Your task to perform on an android device: Turn on the flashlight Image 0: 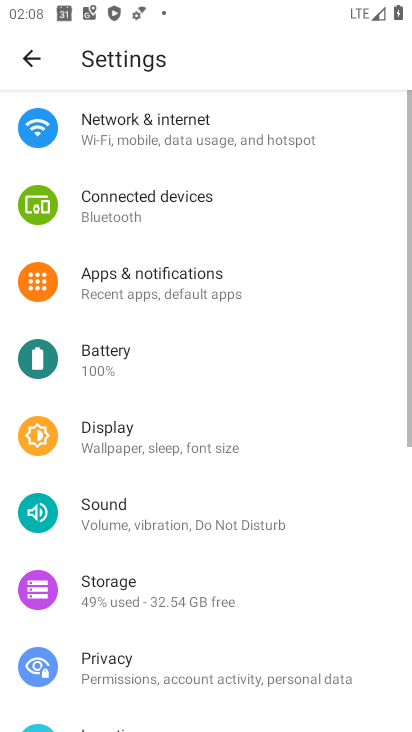
Step 0: press home button
Your task to perform on an android device: Turn on the flashlight Image 1: 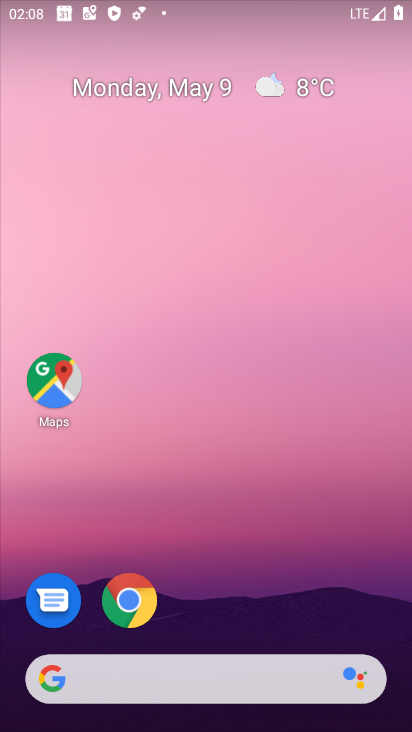
Step 1: drag from (212, 496) to (212, 98)
Your task to perform on an android device: Turn on the flashlight Image 2: 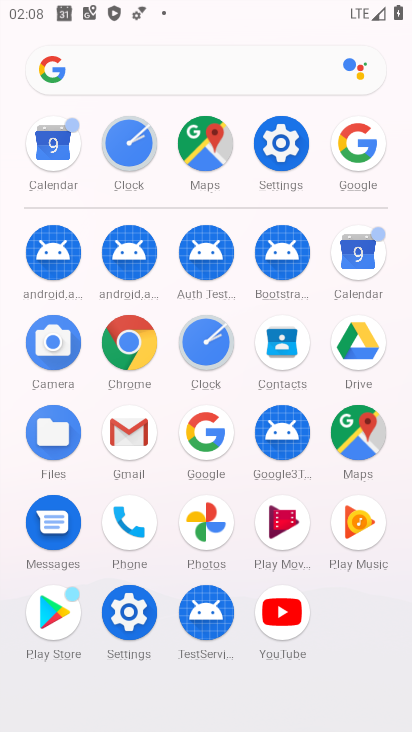
Step 2: click (284, 131)
Your task to perform on an android device: Turn on the flashlight Image 3: 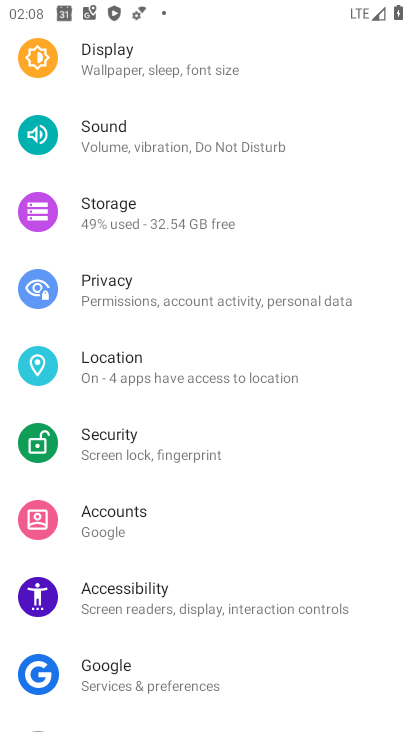
Step 3: drag from (157, 141) to (179, 549)
Your task to perform on an android device: Turn on the flashlight Image 4: 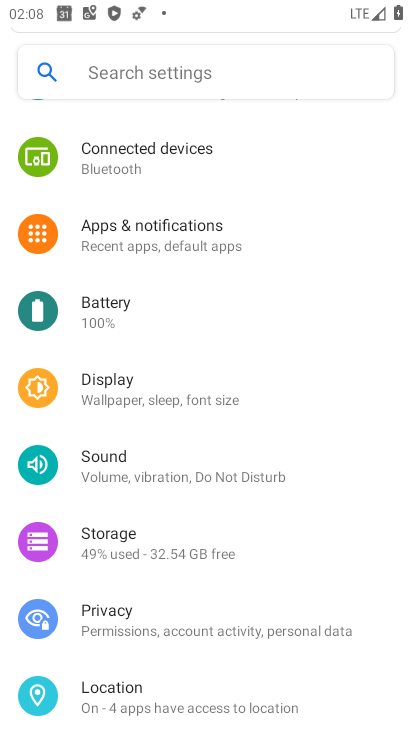
Step 4: click (147, 66)
Your task to perform on an android device: Turn on the flashlight Image 5: 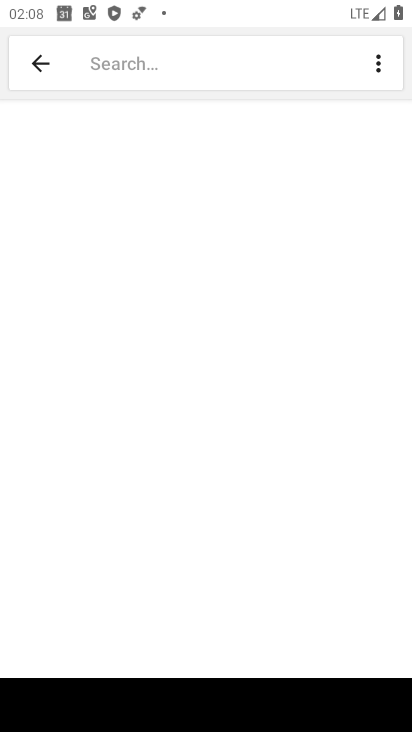
Step 5: click (89, 67)
Your task to perform on an android device: Turn on the flashlight Image 6: 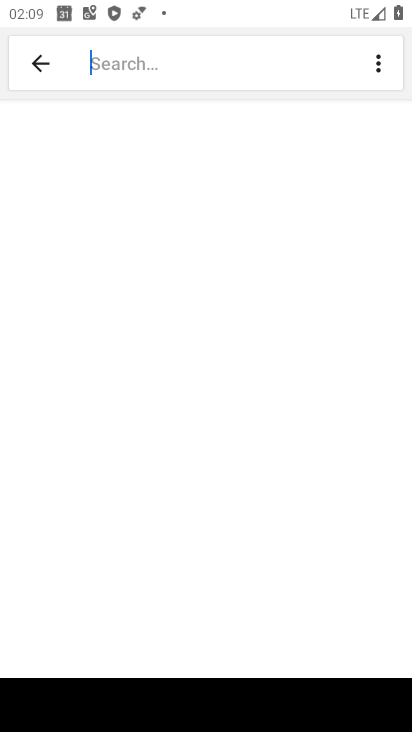
Step 6: type "flashlight"
Your task to perform on an android device: Turn on the flashlight Image 7: 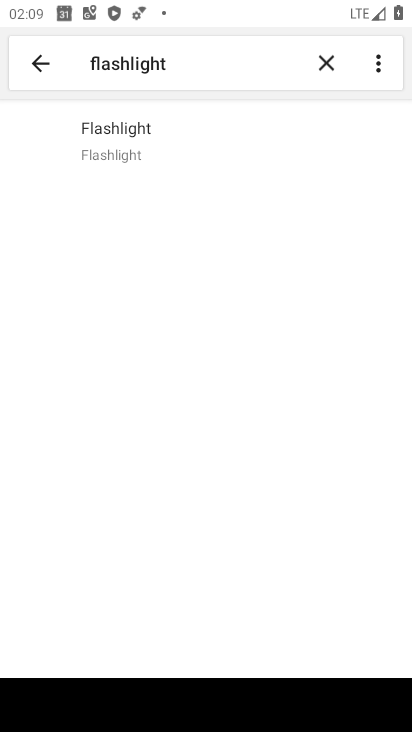
Step 7: click (137, 146)
Your task to perform on an android device: Turn on the flashlight Image 8: 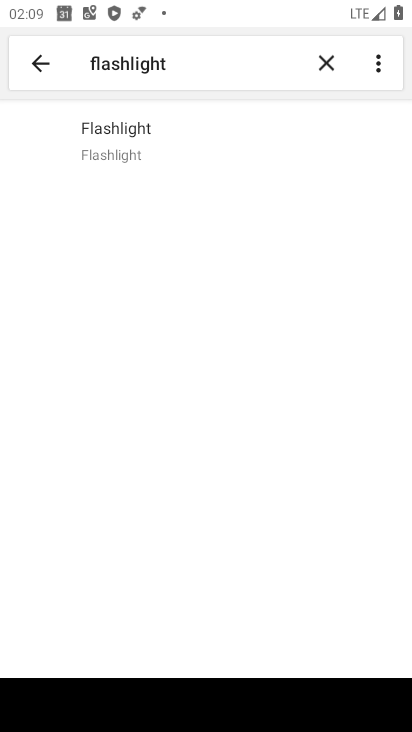
Step 8: task complete